Your task to perform on an android device: see sites visited before in the chrome app Image 0: 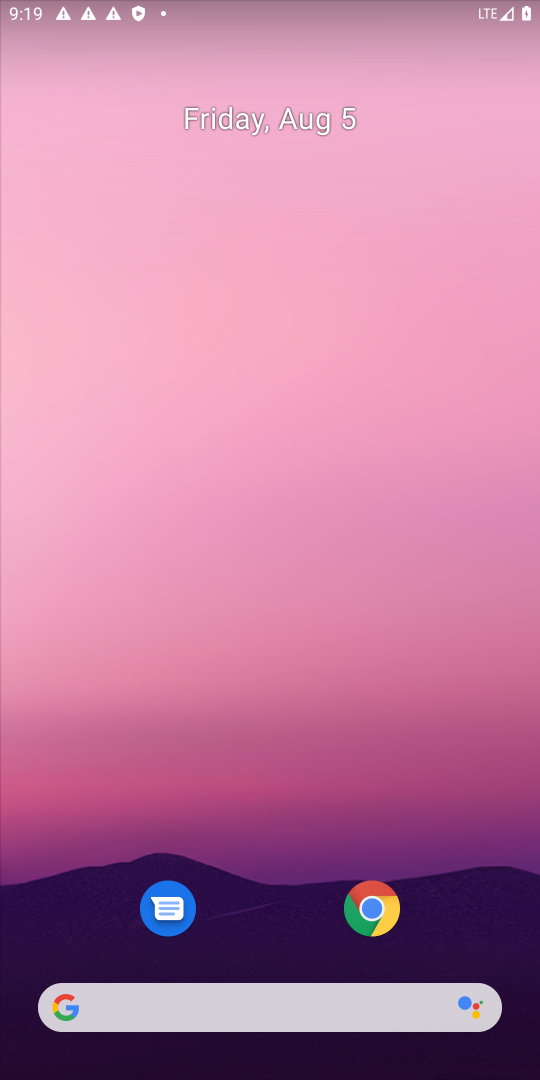
Step 0: click (383, 922)
Your task to perform on an android device: see sites visited before in the chrome app Image 1: 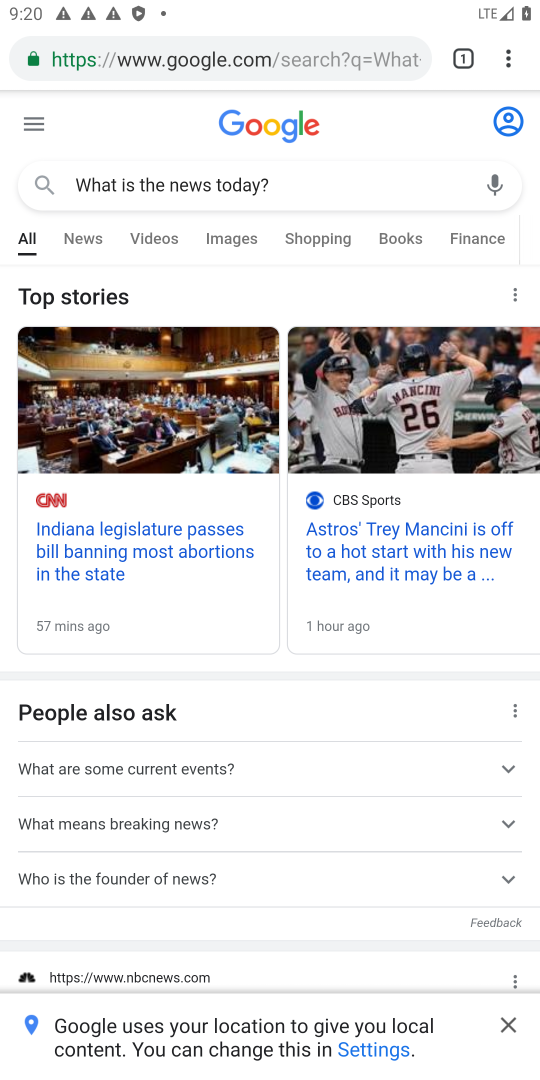
Step 1: click (508, 64)
Your task to perform on an android device: see sites visited before in the chrome app Image 2: 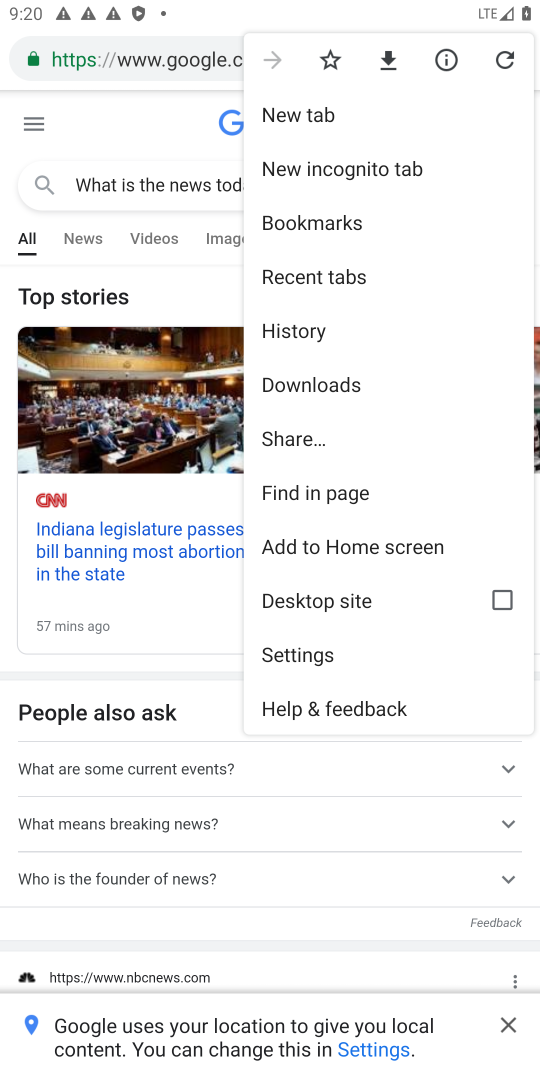
Step 2: click (334, 332)
Your task to perform on an android device: see sites visited before in the chrome app Image 3: 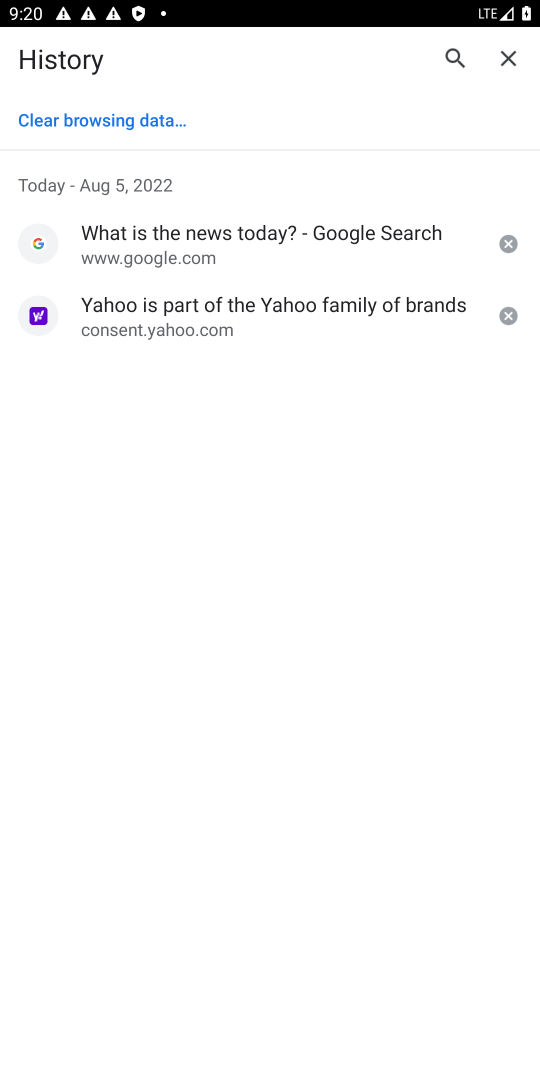
Step 3: task complete